Your task to perform on an android device: Open the phone app and click the voicemail tab. Image 0: 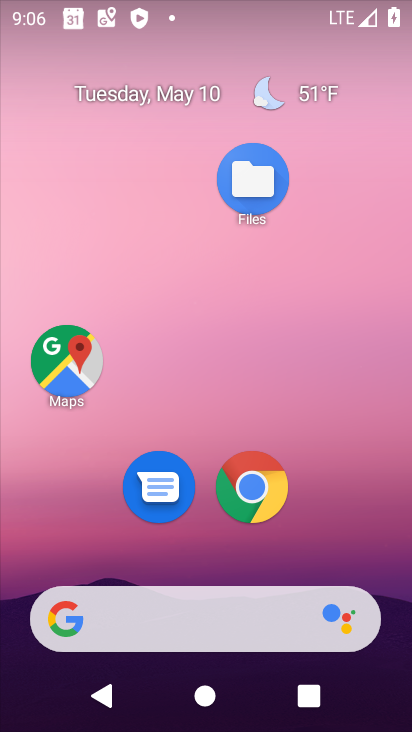
Step 0: drag from (213, 546) to (277, 3)
Your task to perform on an android device: Open the phone app and click the voicemail tab. Image 1: 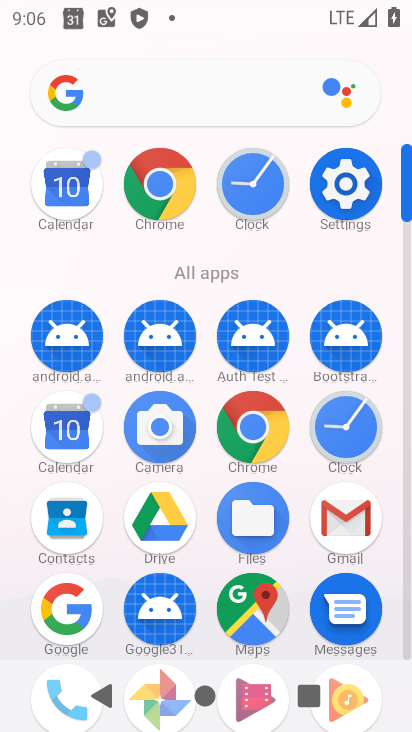
Step 1: drag from (203, 492) to (208, 284)
Your task to perform on an android device: Open the phone app and click the voicemail tab. Image 2: 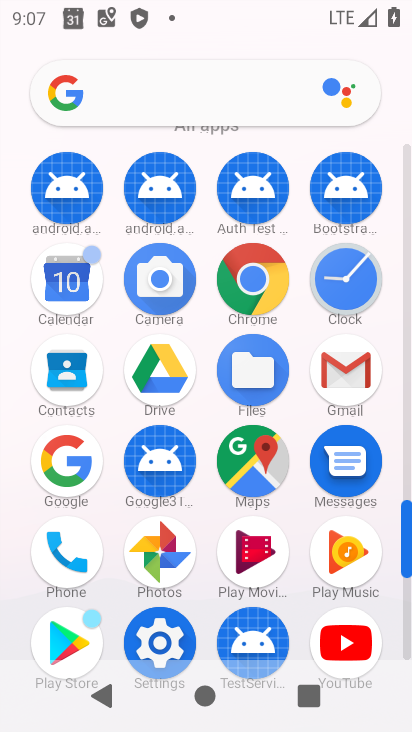
Step 2: click (73, 546)
Your task to perform on an android device: Open the phone app and click the voicemail tab. Image 3: 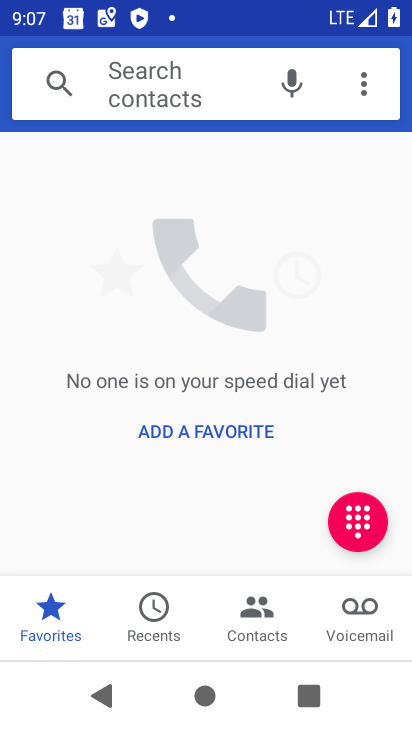
Step 3: click (370, 613)
Your task to perform on an android device: Open the phone app and click the voicemail tab. Image 4: 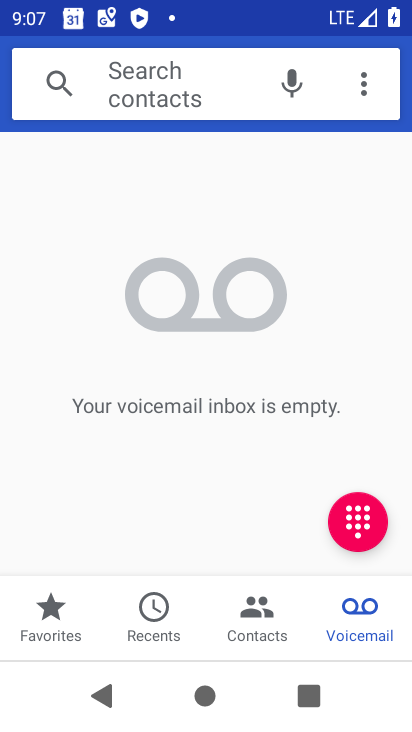
Step 4: task complete